Your task to perform on an android device: change alarm snooze length Image 0: 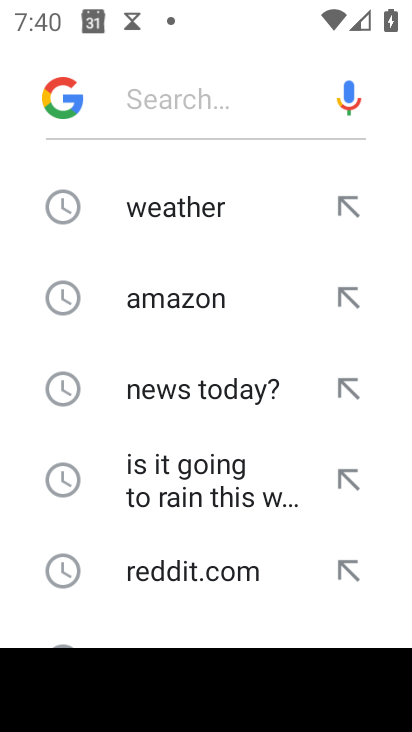
Step 0: press back button
Your task to perform on an android device: change alarm snooze length Image 1: 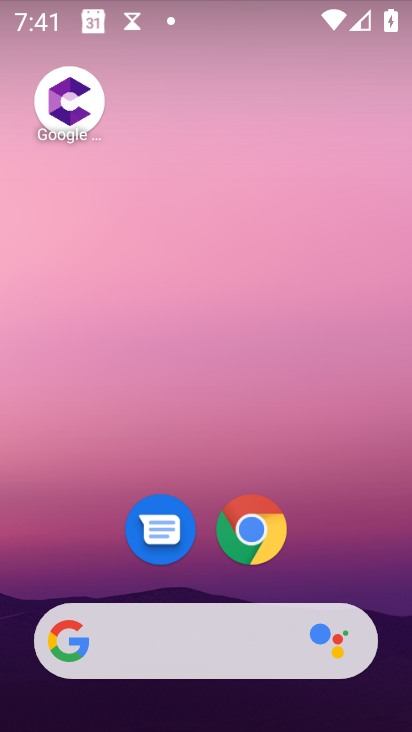
Step 1: drag from (13, 631) to (303, 158)
Your task to perform on an android device: change alarm snooze length Image 2: 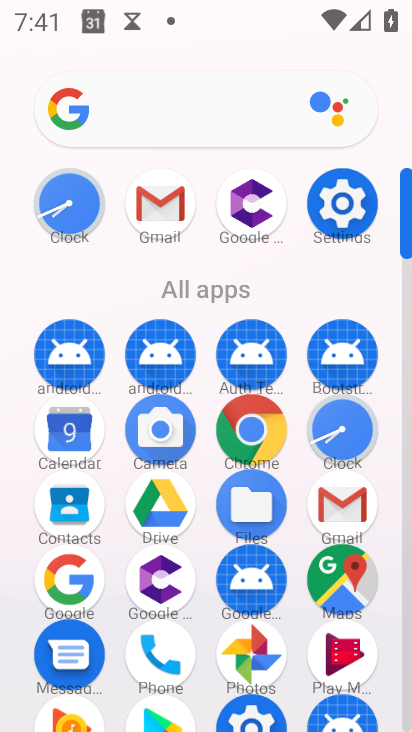
Step 2: click (334, 447)
Your task to perform on an android device: change alarm snooze length Image 3: 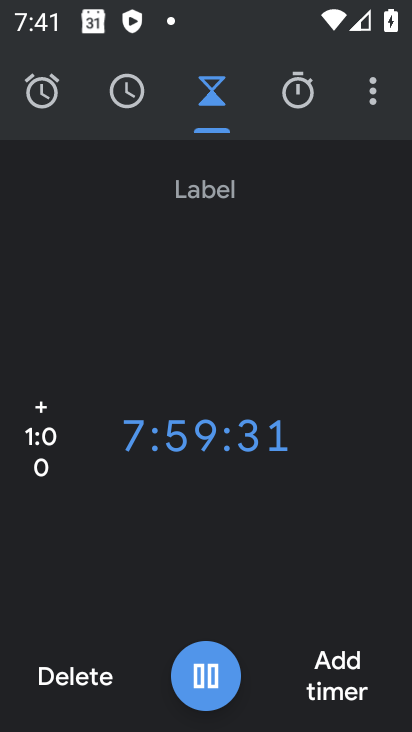
Step 3: click (376, 98)
Your task to perform on an android device: change alarm snooze length Image 4: 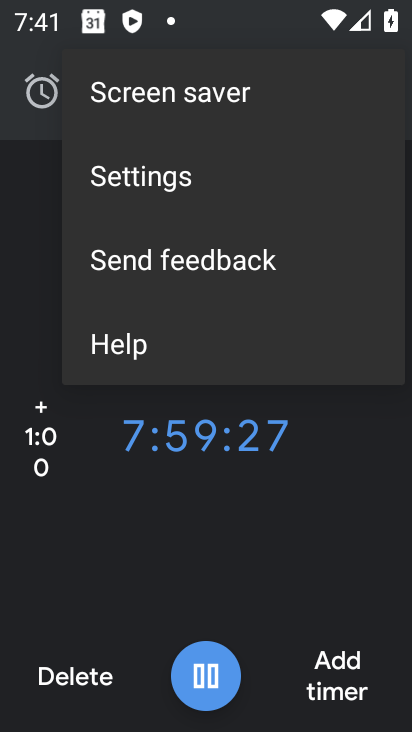
Step 4: click (125, 175)
Your task to perform on an android device: change alarm snooze length Image 5: 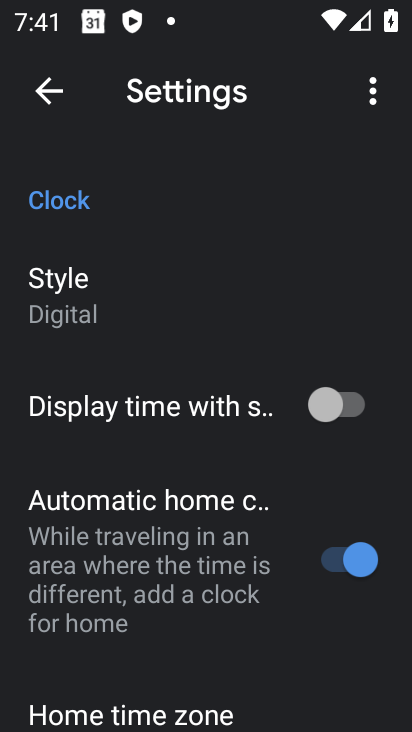
Step 5: drag from (94, 630) to (152, 165)
Your task to perform on an android device: change alarm snooze length Image 6: 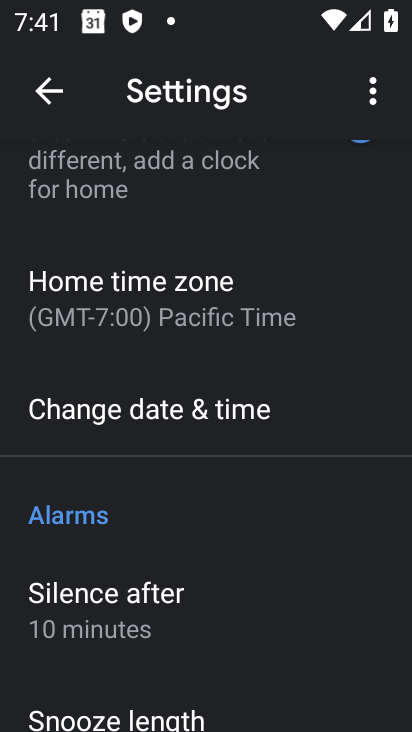
Step 6: drag from (137, 650) to (205, 275)
Your task to perform on an android device: change alarm snooze length Image 7: 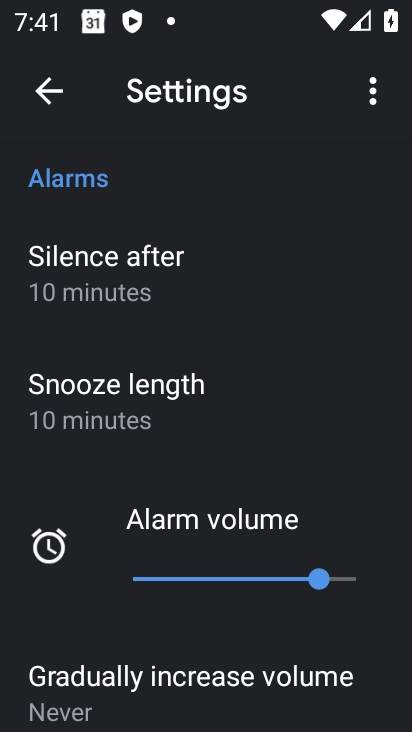
Step 7: click (191, 402)
Your task to perform on an android device: change alarm snooze length Image 8: 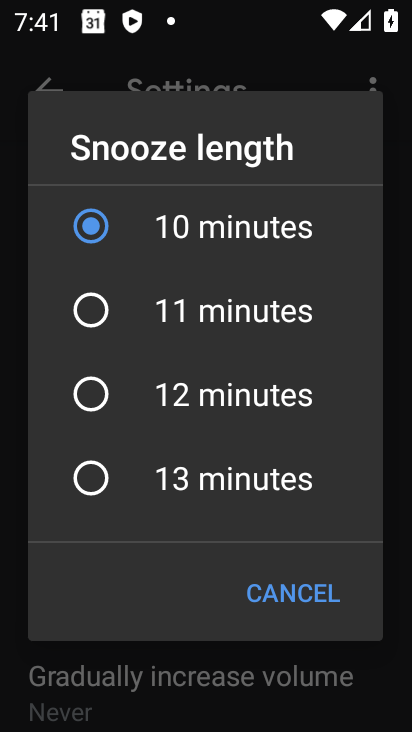
Step 8: click (83, 312)
Your task to perform on an android device: change alarm snooze length Image 9: 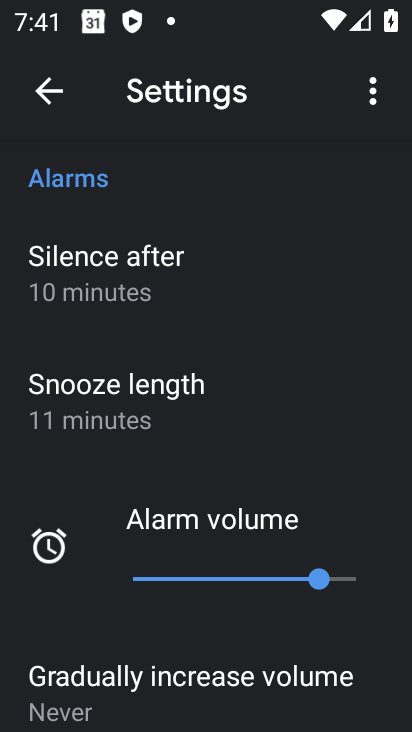
Step 9: task complete